Your task to perform on an android device: check google app version Image 0: 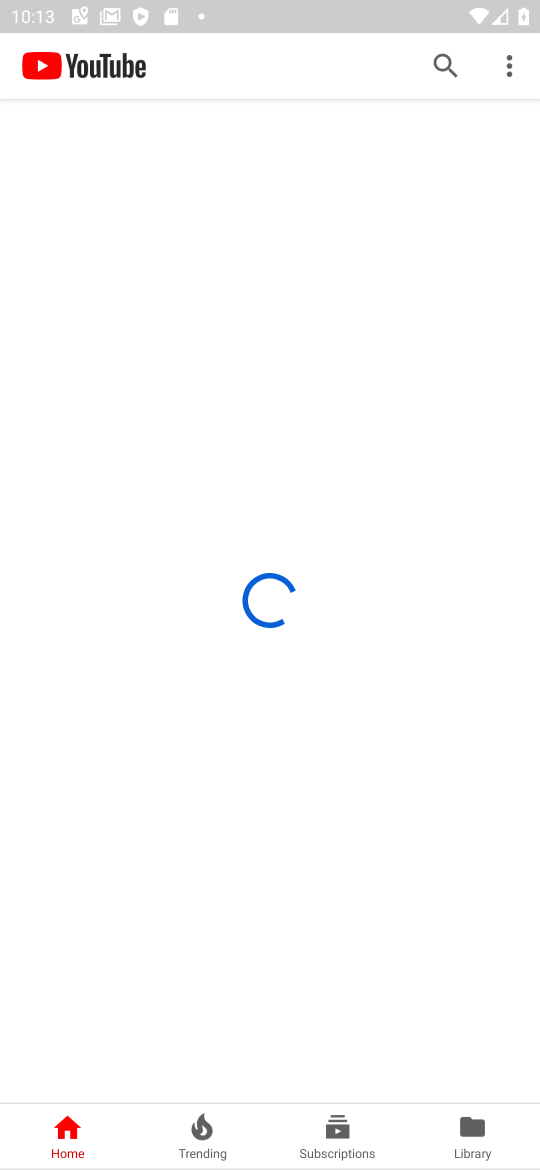
Step 0: press home button
Your task to perform on an android device: check google app version Image 1: 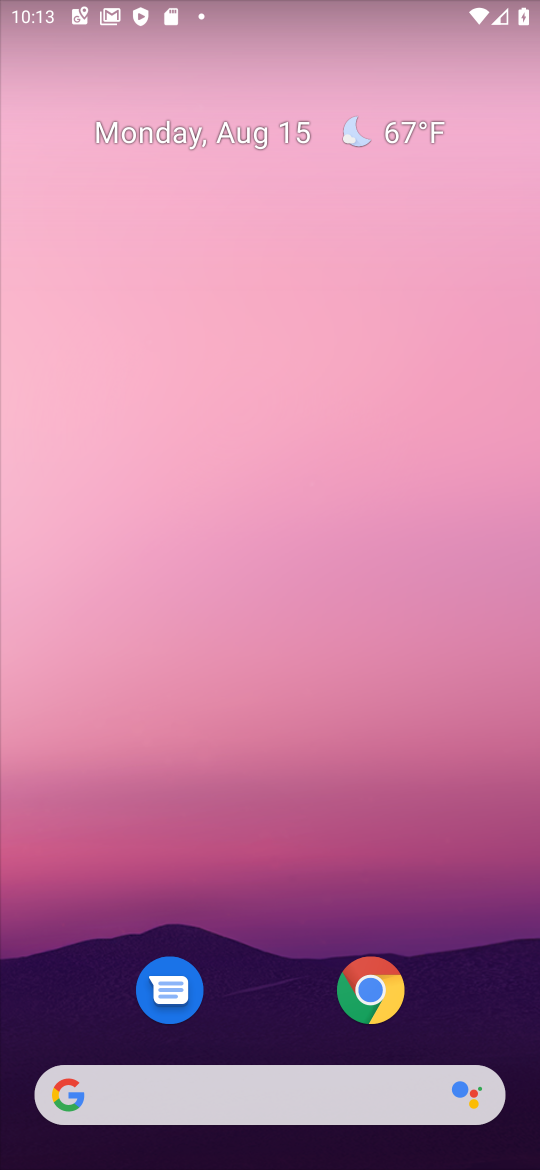
Step 1: drag from (264, 950) to (248, 147)
Your task to perform on an android device: check google app version Image 2: 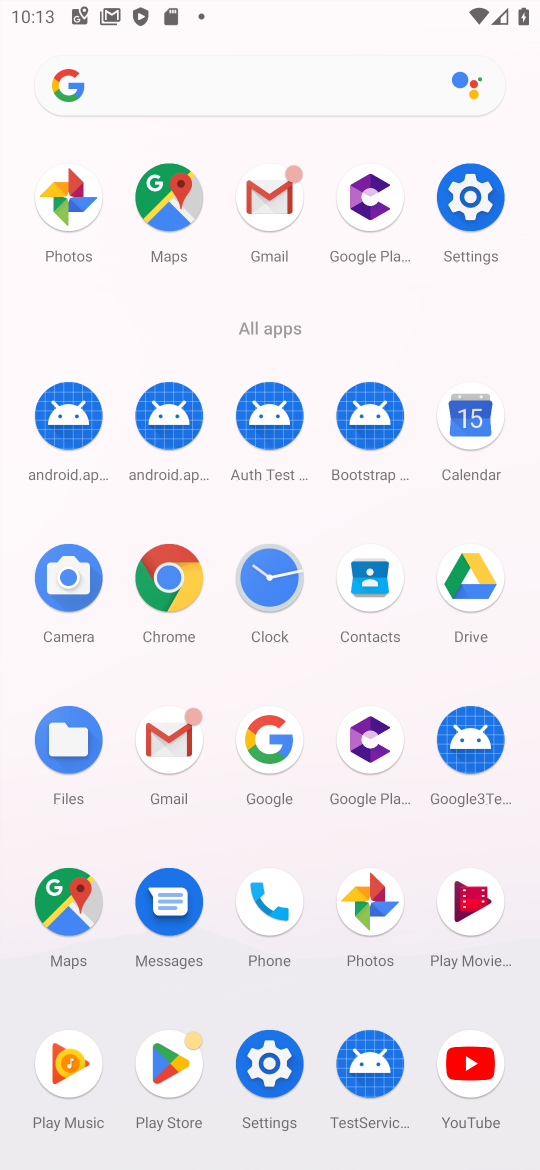
Step 2: click (273, 742)
Your task to perform on an android device: check google app version Image 3: 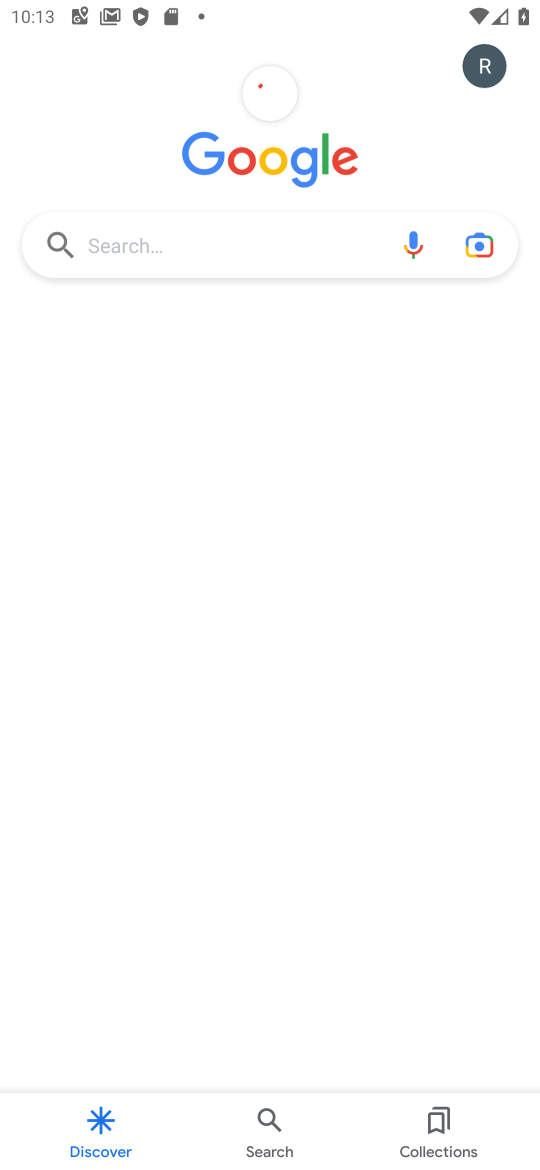
Step 3: click (495, 57)
Your task to perform on an android device: check google app version Image 4: 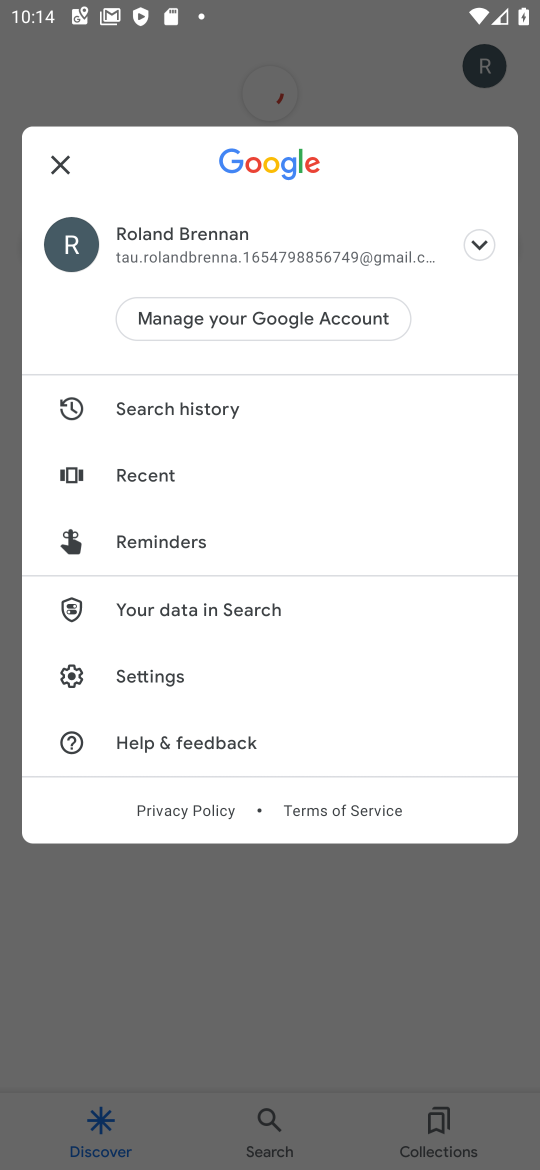
Step 4: click (138, 668)
Your task to perform on an android device: check google app version Image 5: 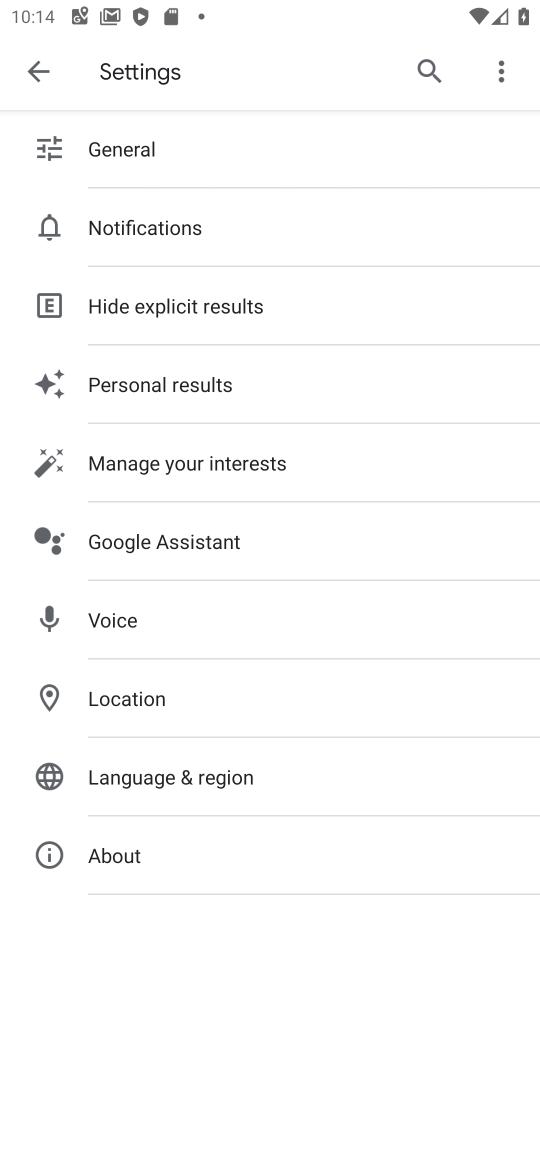
Step 5: click (181, 839)
Your task to perform on an android device: check google app version Image 6: 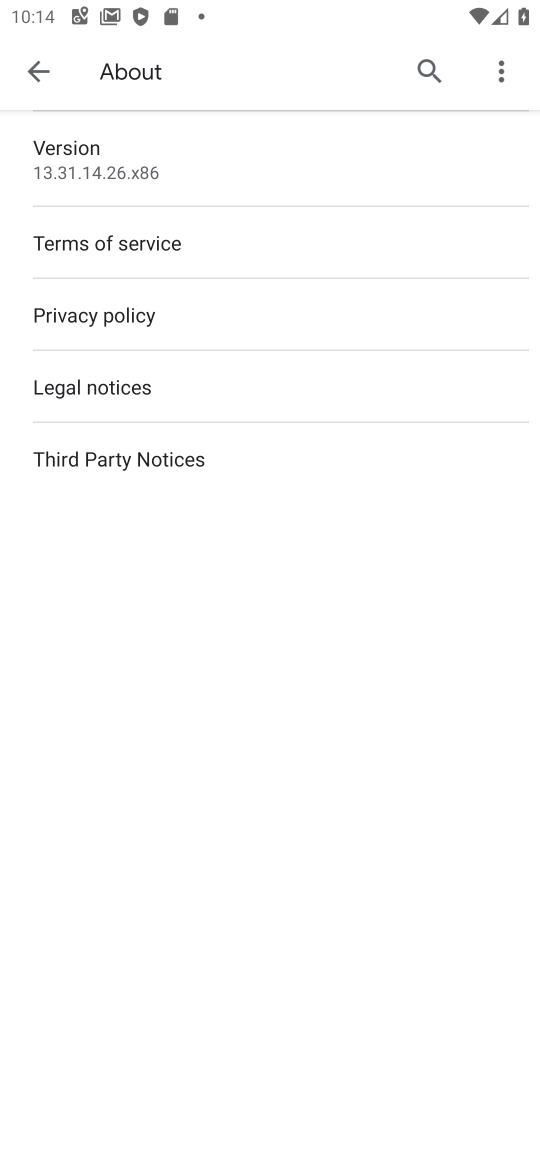
Step 6: task complete